Your task to perform on an android device: change notification settings in the gmail app Image 0: 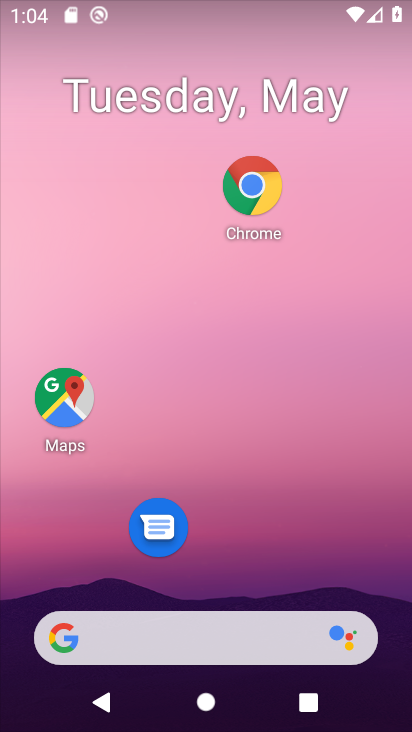
Step 0: drag from (255, 501) to (163, 125)
Your task to perform on an android device: change notification settings in the gmail app Image 1: 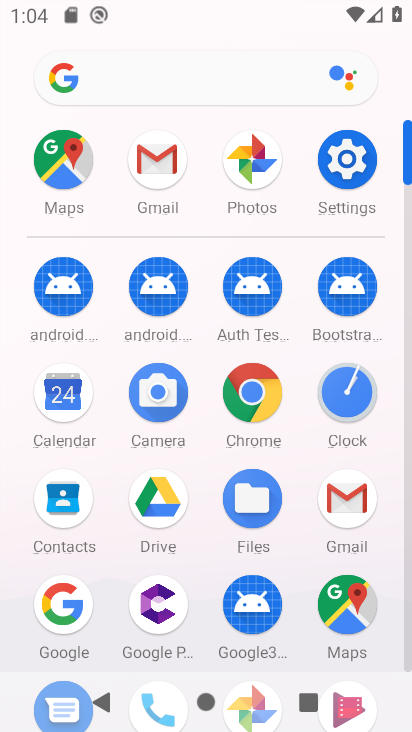
Step 1: click (335, 491)
Your task to perform on an android device: change notification settings in the gmail app Image 2: 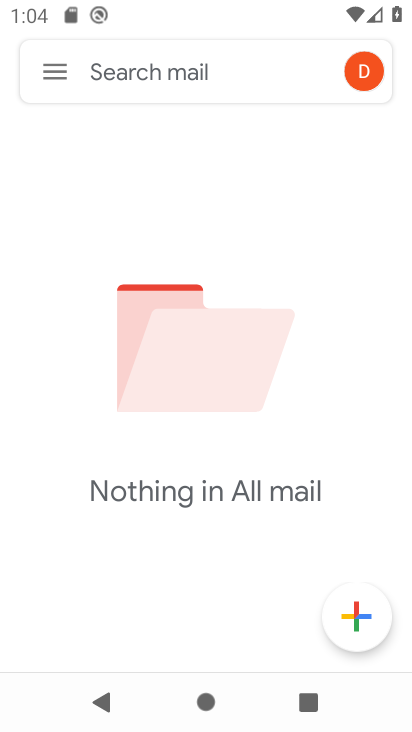
Step 2: click (55, 60)
Your task to perform on an android device: change notification settings in the gmail app Image 3: 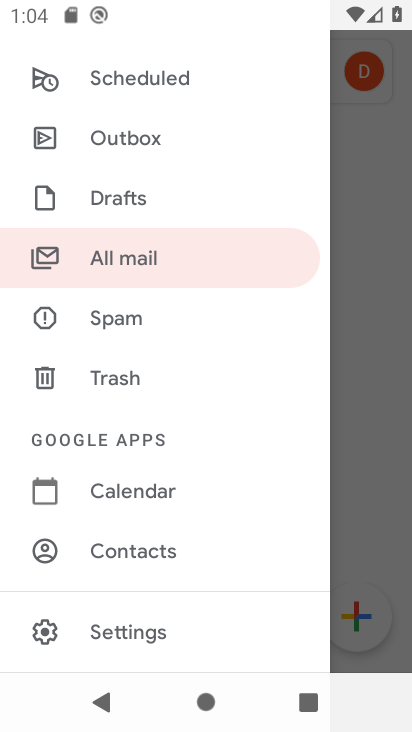
Step 3: click (144, 622)
Your task to perform on an android device: change notification settings in the gmail app Image 4: 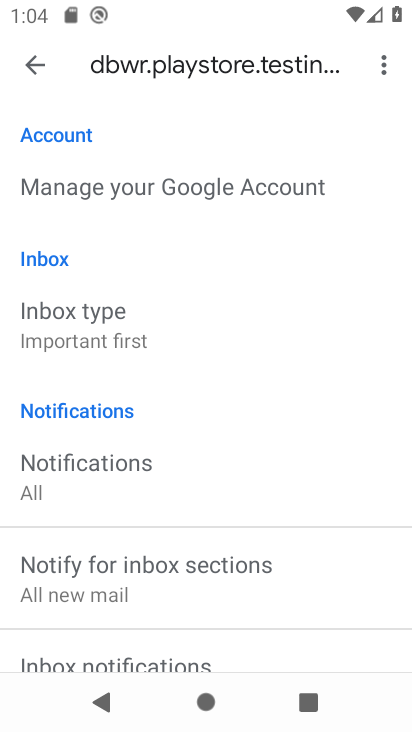
Step 4: click (33, 75)
Your task to perform on an android device: change notification settings in the gmail app Image 5: 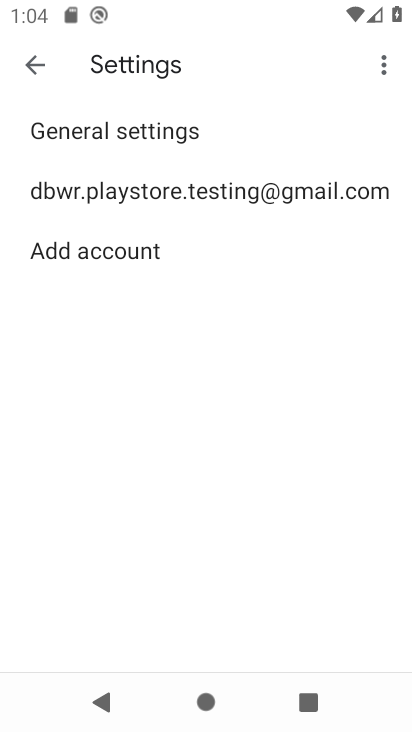
Step 5: click (97, 123)
Your task to perform on an android device: change notification settings in the gmail app Image 6: 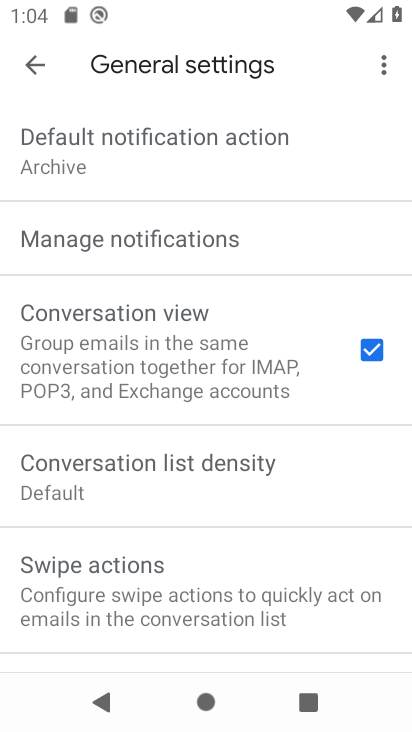
Step 6: click (116, 244)
Your task to perform on an android device: change notification settings in the gmail app Image 7: 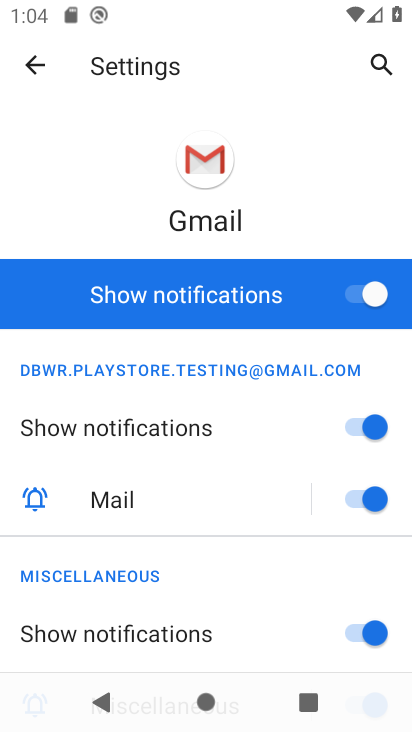
Step 7: click (366, 290)
Your task to perform on an android device: change notification settings in the gmail app Image 8: 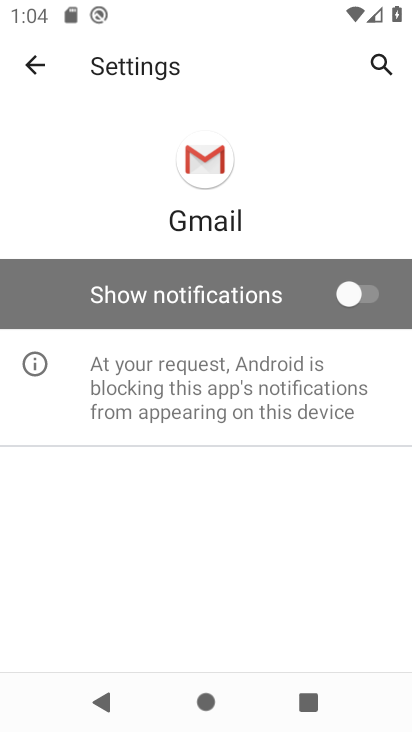
Step 8: task complete